Your task to perform on an android device: set the timer Image 0: 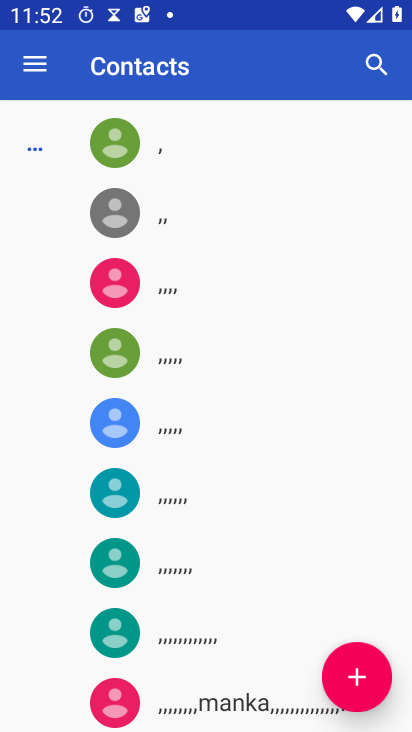
Step 0: press home button
Your task to perform on an android device: set the timer Image 1: 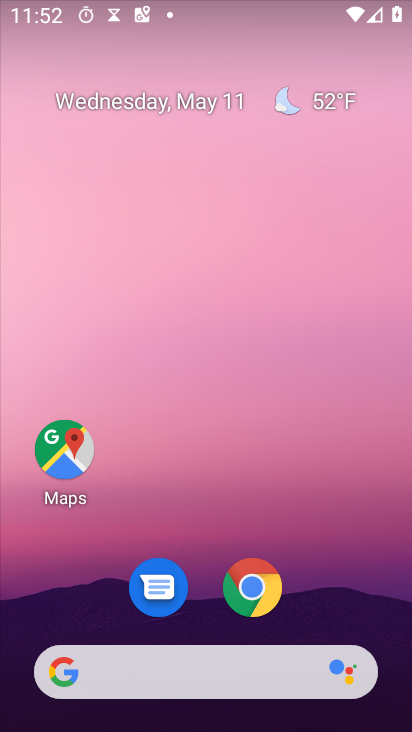
Step 1: drag from (196, 693) to (264, 204)
Your task to perform on an android device: set the timer Image 2: 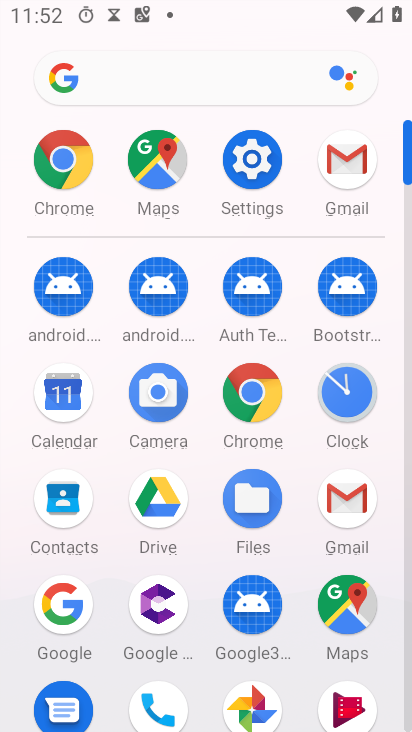
Step 2: click (332, 421)
Your task to perform on an android device: set the timer Image 3: 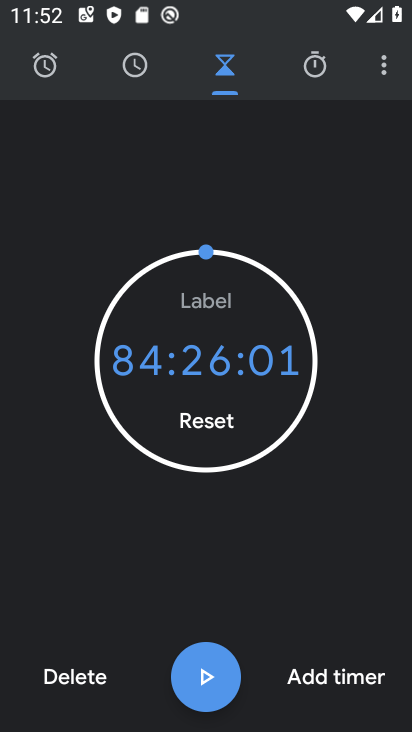
Step 3: click (376, 74)
Your task to perform on an android device: set the timer Image 4: 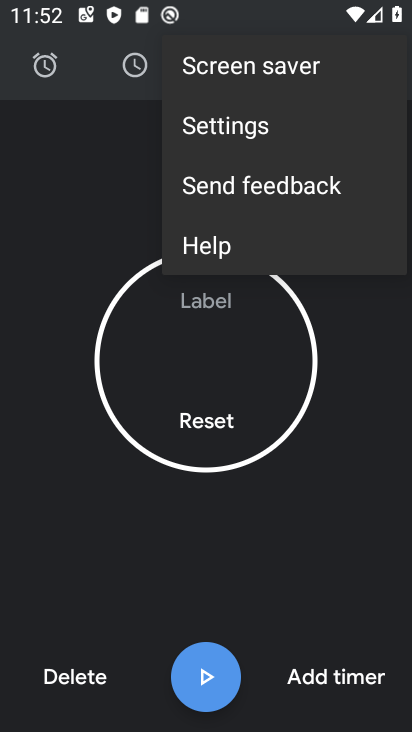
Step 4: click (275, 124)
Your task to perform on an android device: set the timer Image 5: 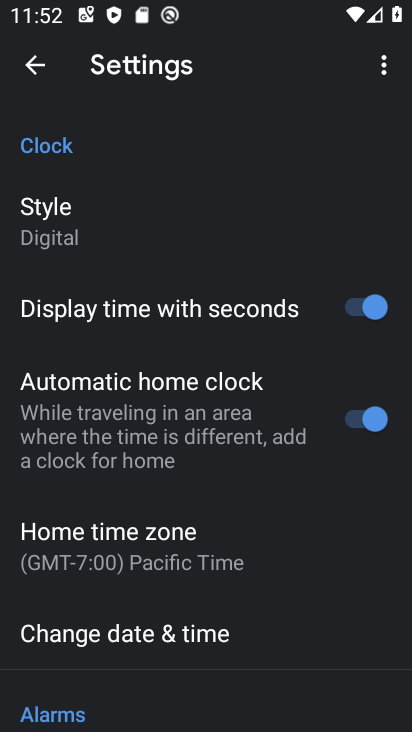
Step 5: click (27, 55)
Your task to perform on an android device: set the timer Image 6: 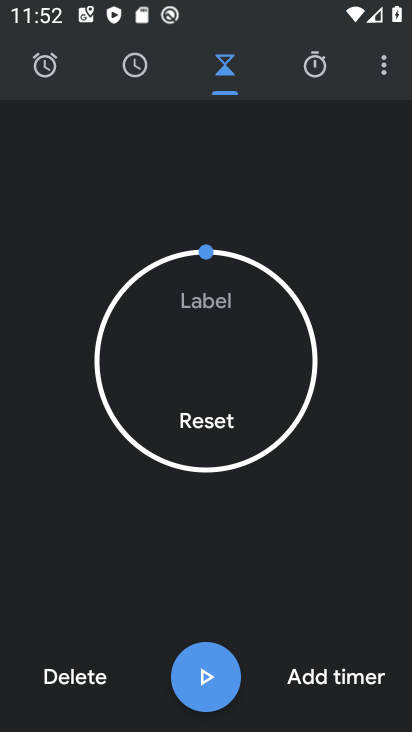
Step 6: click (331, 656)
Your task to perform on an android device: set the timer Image 7: 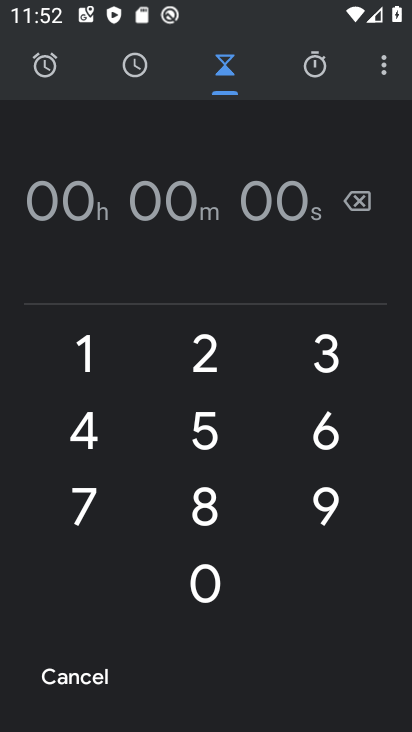
Step 7: click (205, 440)
Your task to perform on an android device: set the timer Image 8: 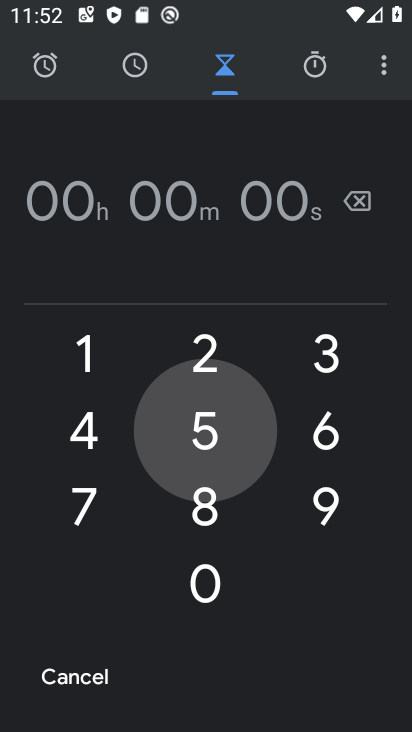
Step 8: click (78, 450)
Your task to perform on an android device: set the timer Image 9: 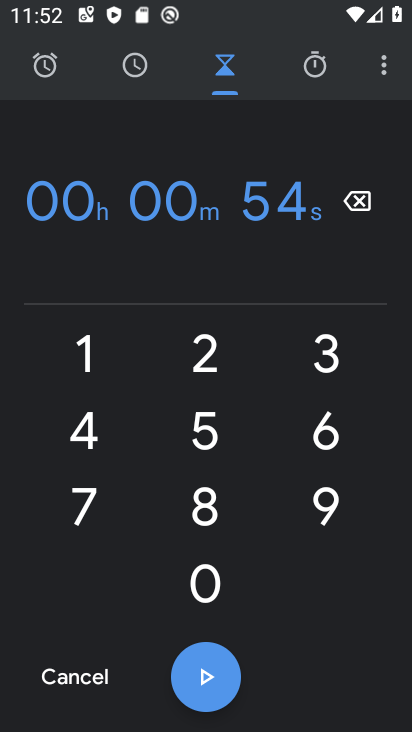
Step 9: click (180, 506)
Your task to perform on an android device: set the timer Image 10: 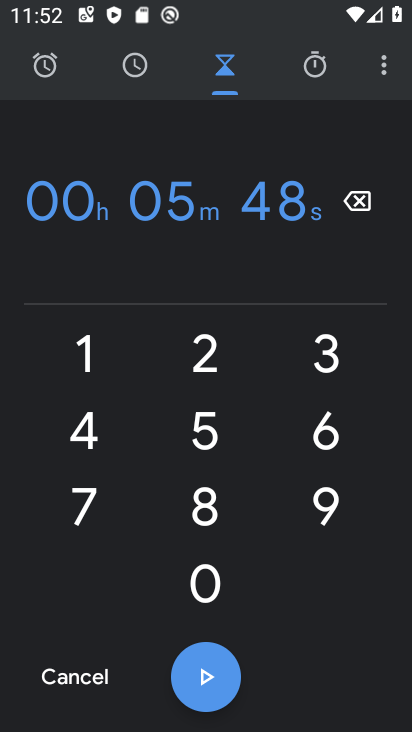
Step 10: click (98, 392)
Your task to perform on an android device: set the timer Image 11: 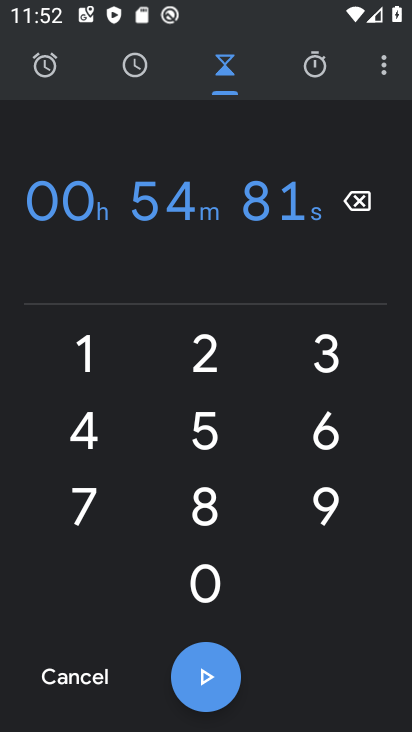
Step 11: click (314, 420)
Your task to perform on an android device: set the timer Image 12: 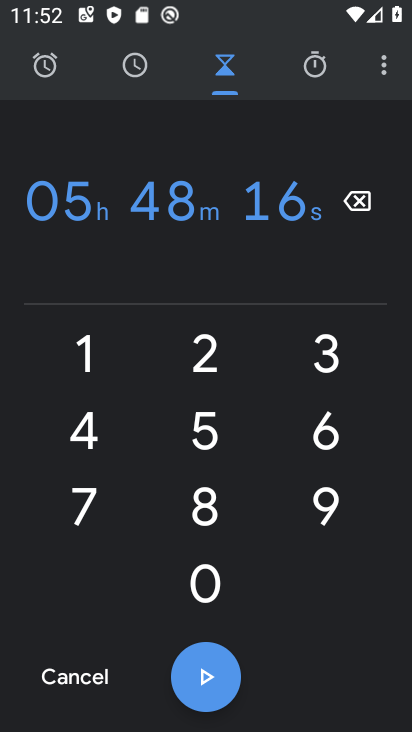
Step 12: click (218, 515)
Your task to perform on an android device: set the timer Image 13: 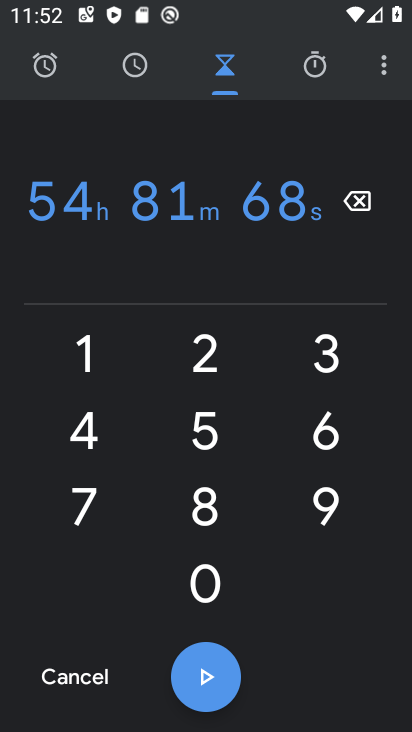
Step 13: click (188, 578)
Your task to perform on an android device: set the timer Image 14: 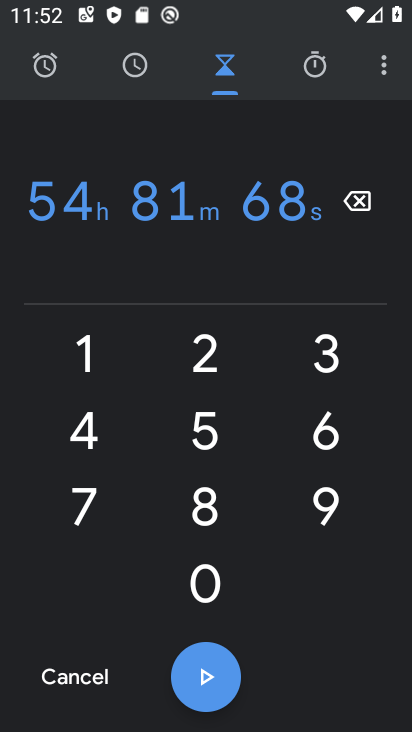
Step 14: click (216, 379)
Your task to perform on an android device: set the timer Image 15: 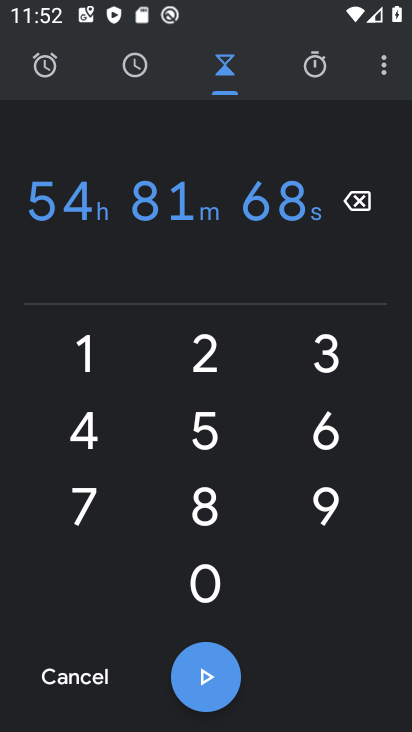
Step 15: task complete